Your task to perform on an android device: all mails in gmail Image 0: 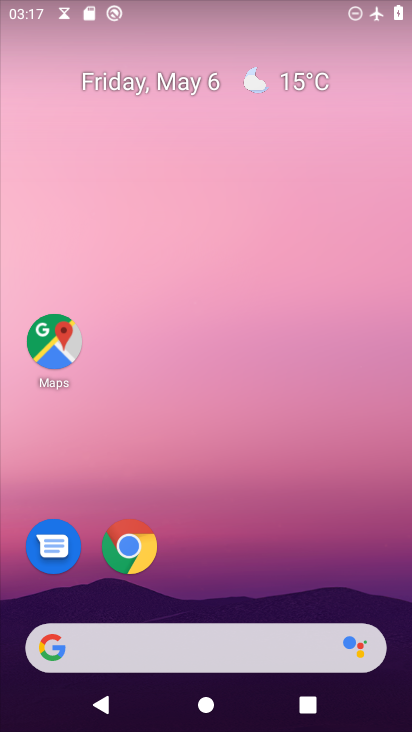
Step 0: drag from (269, 584) to (277, 66)
Your task to perform on an android device: all mails in gmail Image 1: 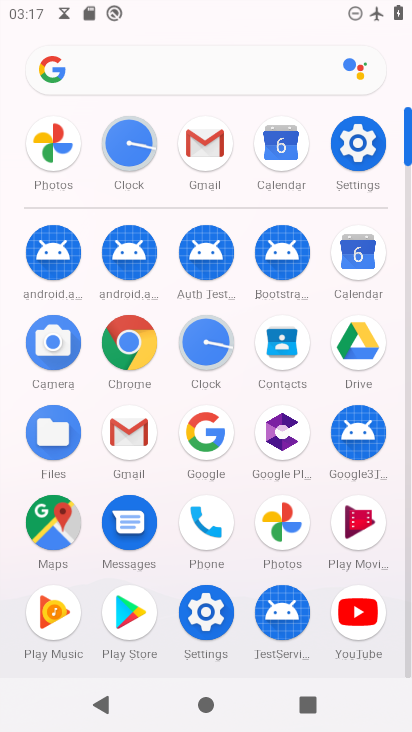
Step 1: click (203, 159)
Your task to perform on an android device: all mails in gmail Image 2: 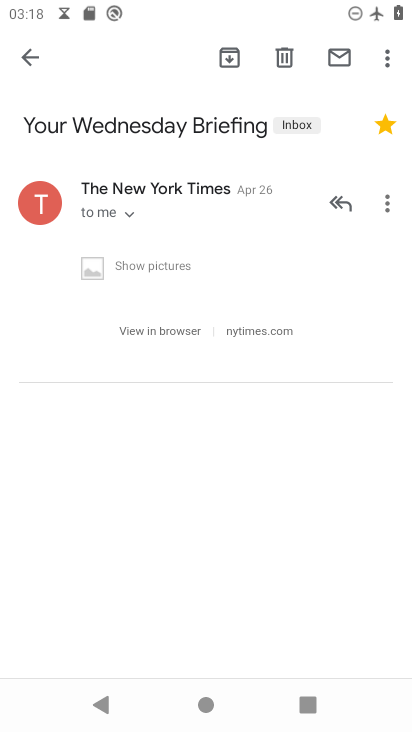
Step 2: click (22, 58)
Your task to perform on an android device: all mails in gmail Image 3: 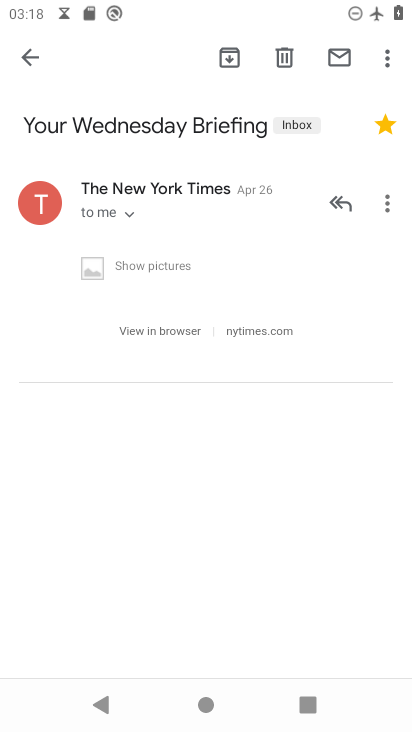
Step 3: click (28, 58)
Your task to perform on an android device: all mails in gmail Image 4: 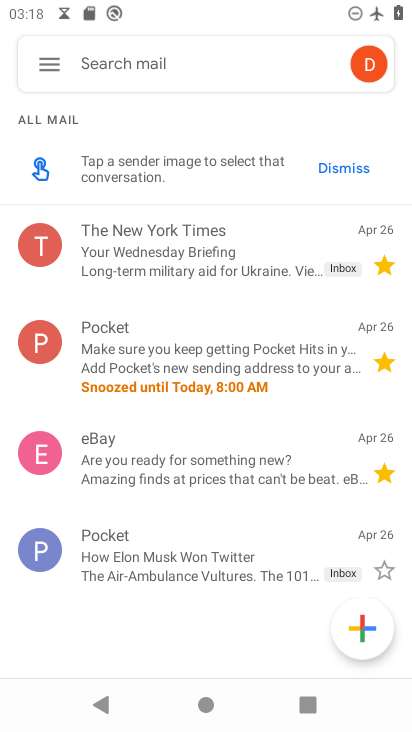
Step 4: click (47, 65)
Your task to perform on an android device: all mails in gmail Image 5: 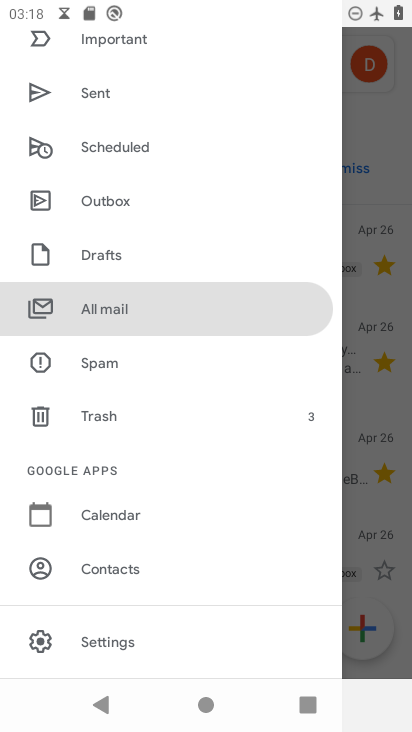
Step 5: click (220, 302)
Your task to perform on an android device: all mails in gmail Image 6: 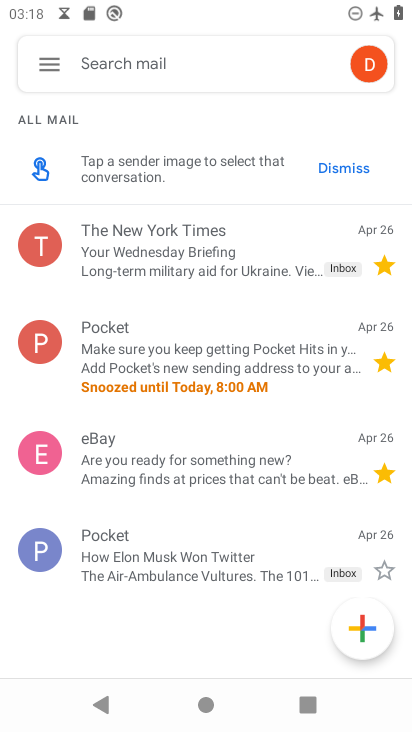
Step 6: task complete